Your task to perform on an android device: check battery use Image 0: 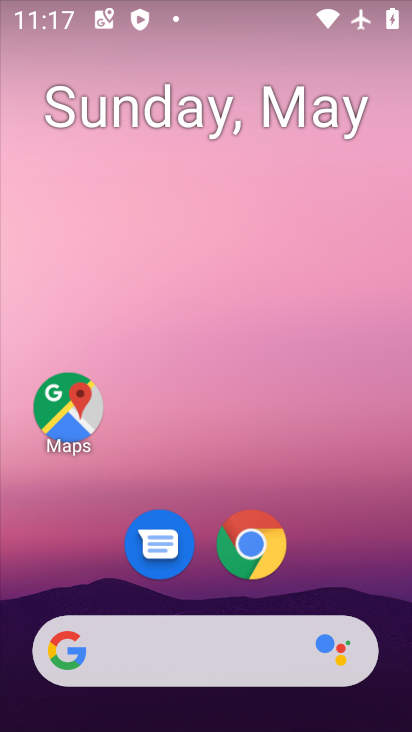
Step 0: drag from (304, 549) to (326, 312)
Your task to perform on an android device: check battery use Image 1: 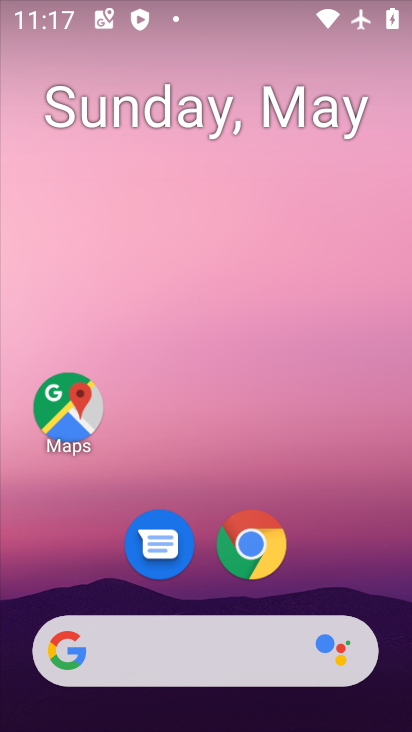
Step 1: drag from (346, 438) to (325, 275)
Your task to perform on an android device: check battery use Image 2: 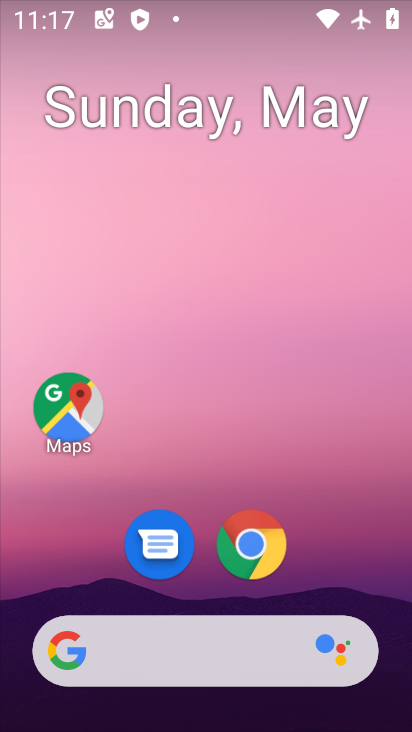
Step 2: drag from (311, 528) to (292, 219)
Your task to perform on an android device: check battery use Image 3: 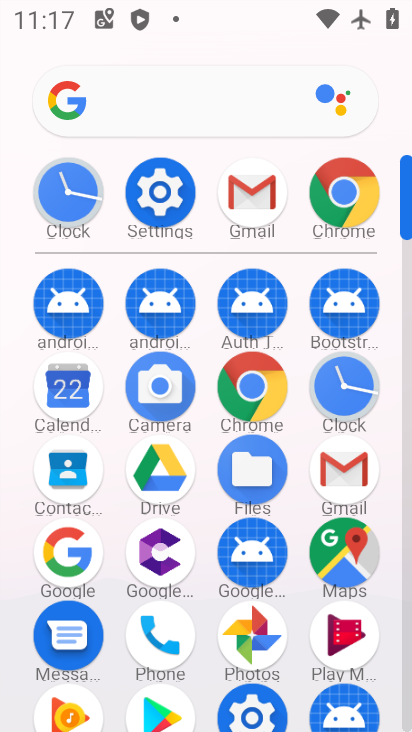
Step 3: click (171, 201)
Your task to perform on an android device: check battery use Image 4: 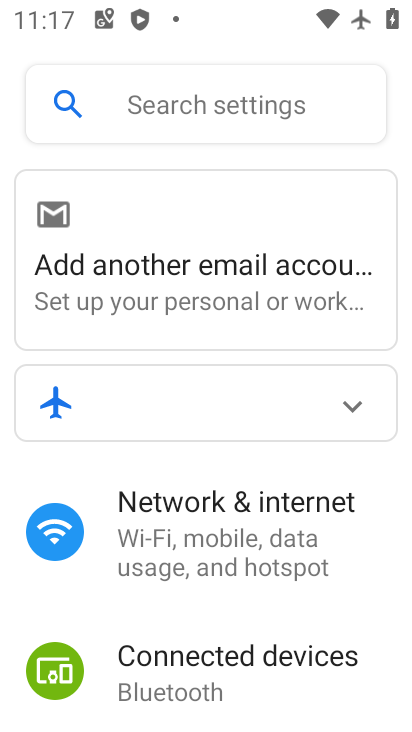
Step 4: drag from (175, 615) to (231, 201)
Your task to perform on an android device: check battery use Image 5: 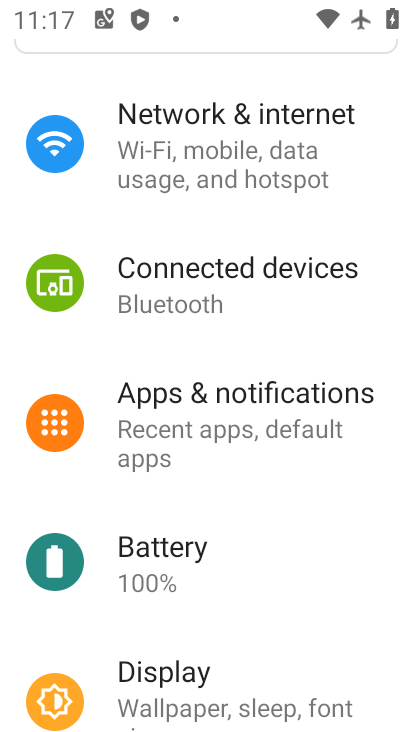
Step 5: click (179, 557)
Your task to perform on an android device: check battery use Image 6: 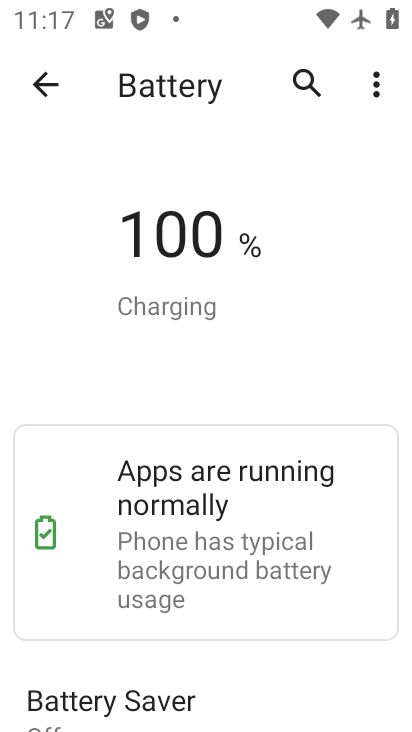
Step 6: task complete